Your task to perform on an android device: clear history in the chrome app Image 0: 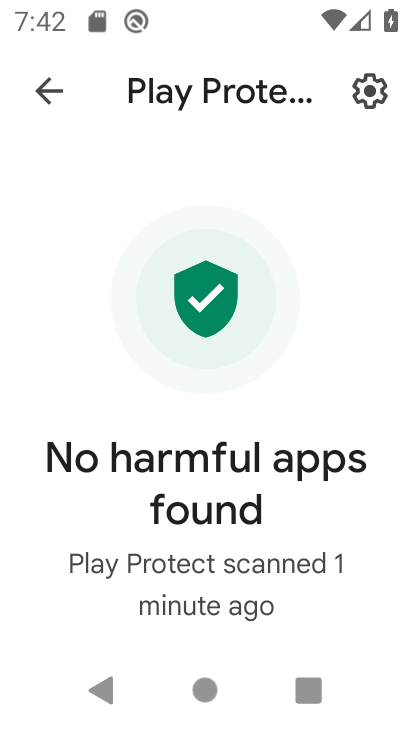
Step 0: press back button
Your task to perform on an android device: clear history in the chrome app Image 1: 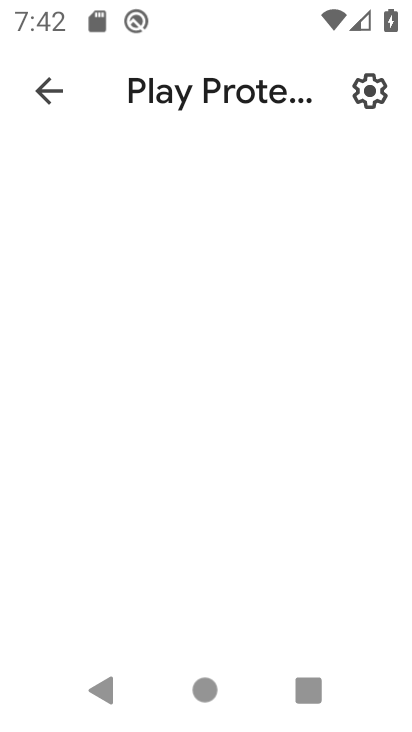
Step 1: press back button
Your task to perform on an android device: clear history in the chrome app Image 2: 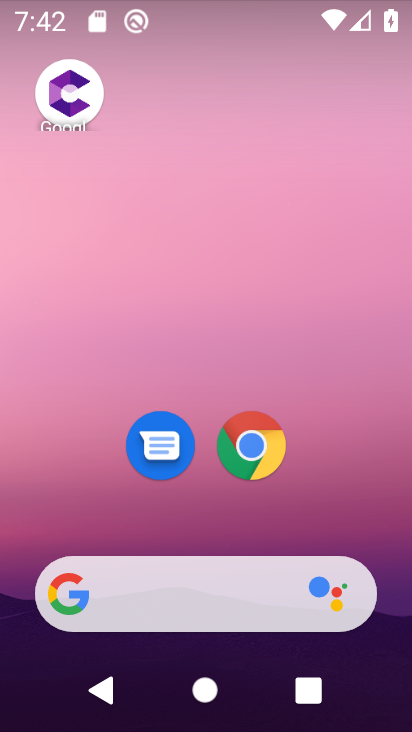
Step 2: drag from (264, 573) to (216, 85)
Your task to perform on an android device: clear history in the chrome app Image 3: 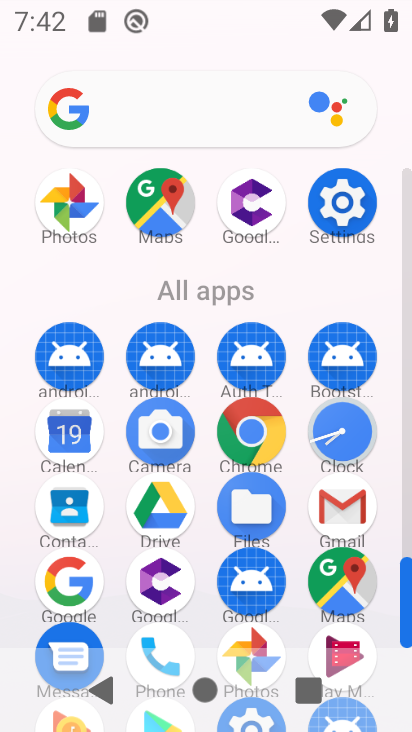
Step 3: click (236, 431)
Your task to perform on an android device: clear history in the chrome app Image 4: 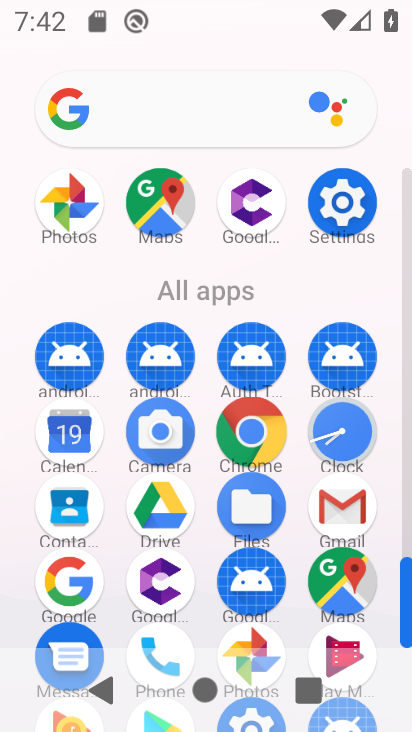
Step 4: click (237, 430)
Your task to perform on an android device: clear history in the chrome app Image 5: 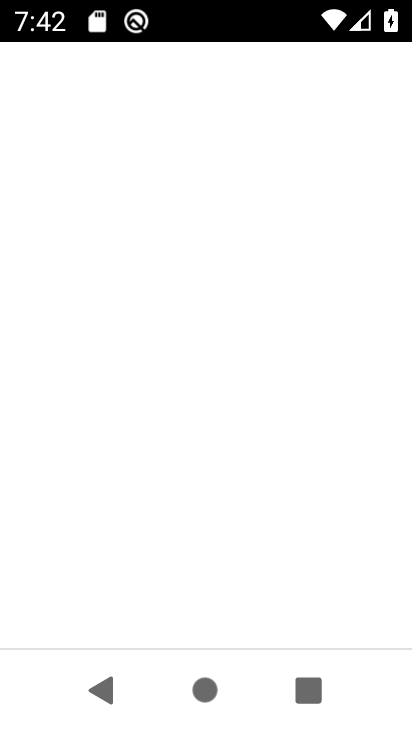
Step 5: click (245, 425)
Your task to perform on an android device: clear history in the chrome app Image 6: 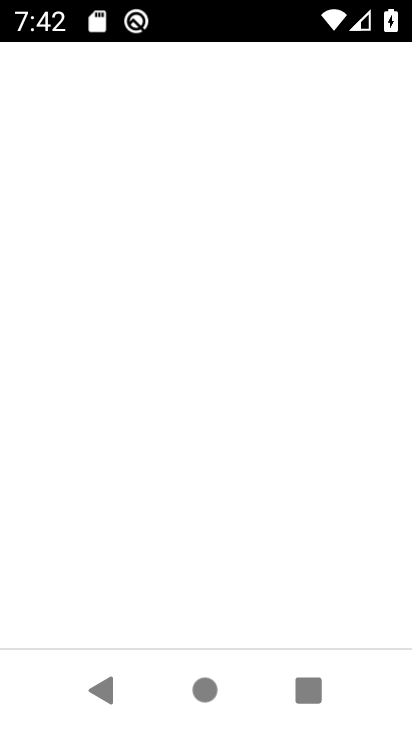
Step 6: click (247, 413)
Your task to perform on an android device: clear history in the chrome app Image 7: 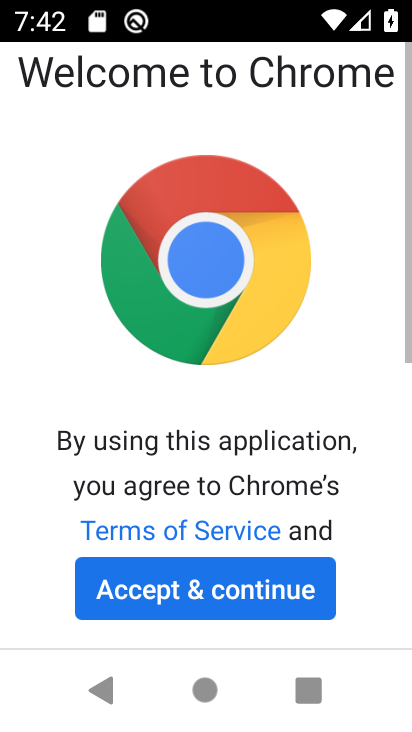
Step 7: click (247, 415)
Your task to perform on an android device: clear history in the chrome app Image 8: 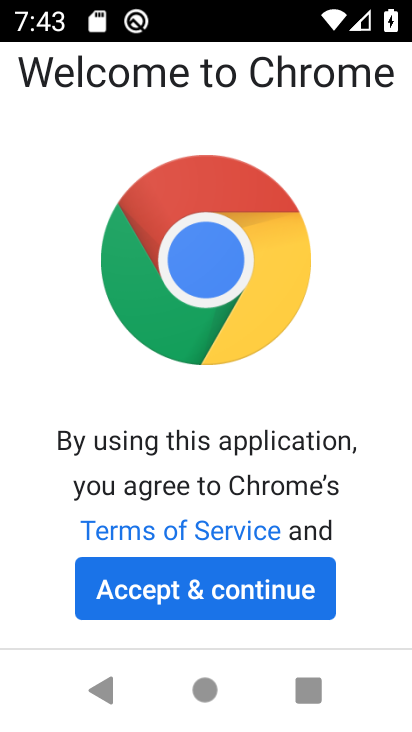
Step 8: click (231, 573)
Your task to perform on an android device: clear history in the chrome app Image 9: 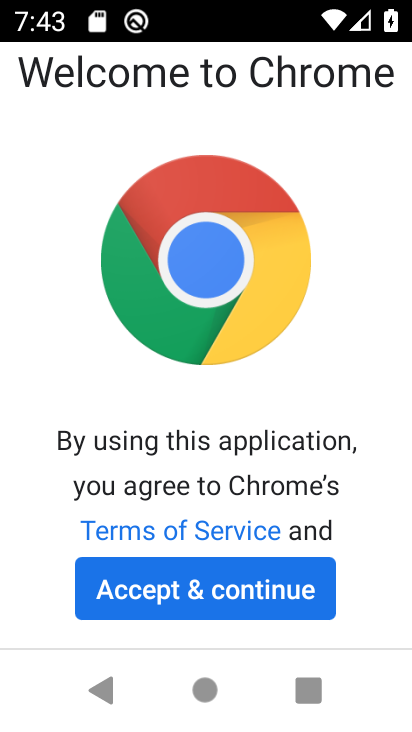
Step 9: click (231, 573)
Your task to perform on an android device: clear history in the chrome app Image 10: 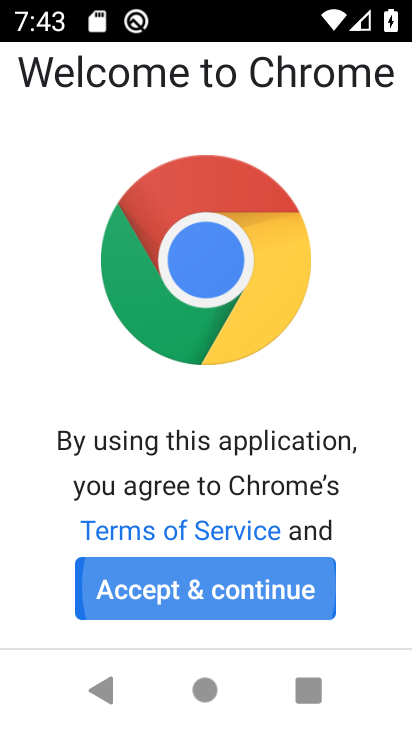
Step 10: click (231, 573)
Your task to perform on an android device: clear history in the chrome app Image 11: 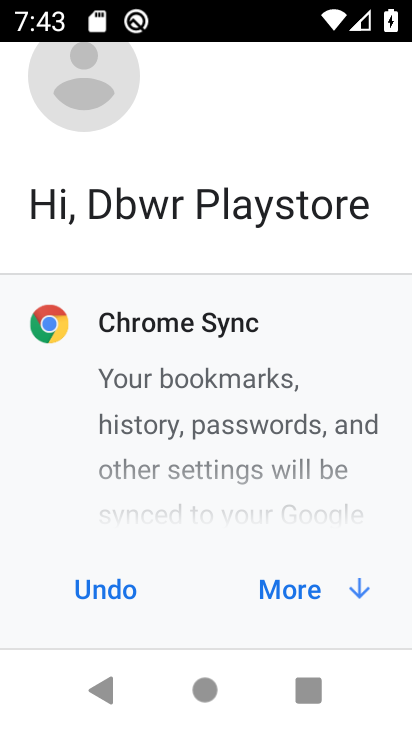
Step 11: click (234, 583)
Your task to perform on an android device: clear history in the chrome app Image 12: 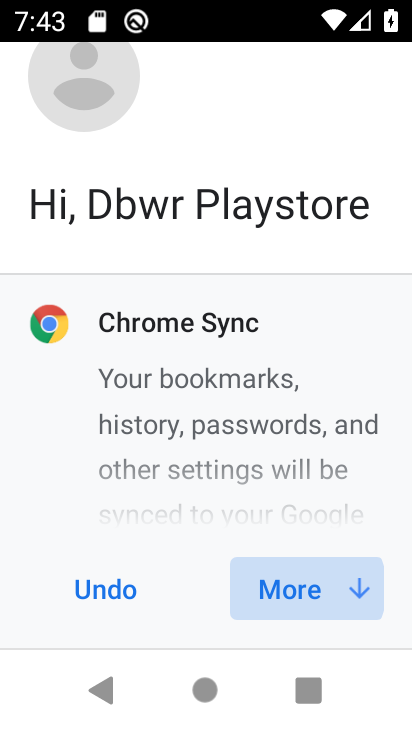
Step 12: click (242, 592)
Your task to perform on an android device: clear history in the chrome app Image 13: 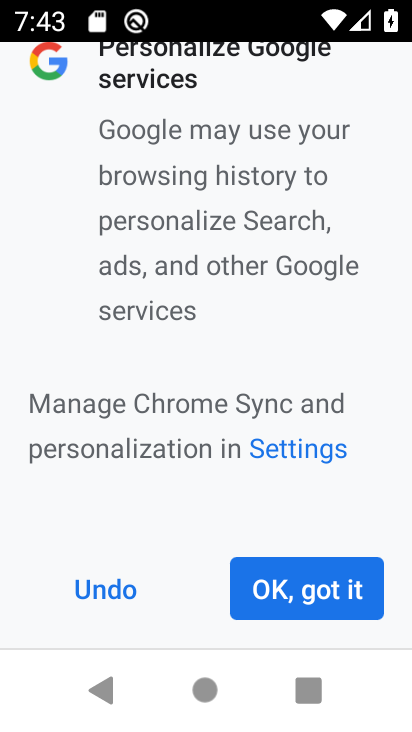
Step 13: click (278, 591)
Your task to perform on an android device: clear history in the chrome app Image 14: 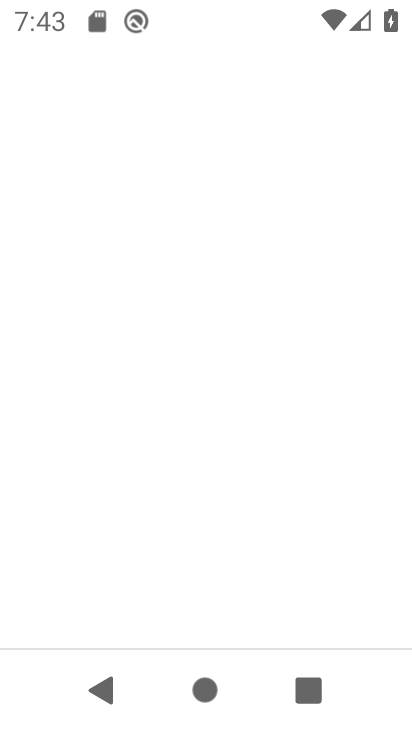
Step 14: click (278, 589)
Your task to perform on an android device: clear history in the chrome app Image 15: 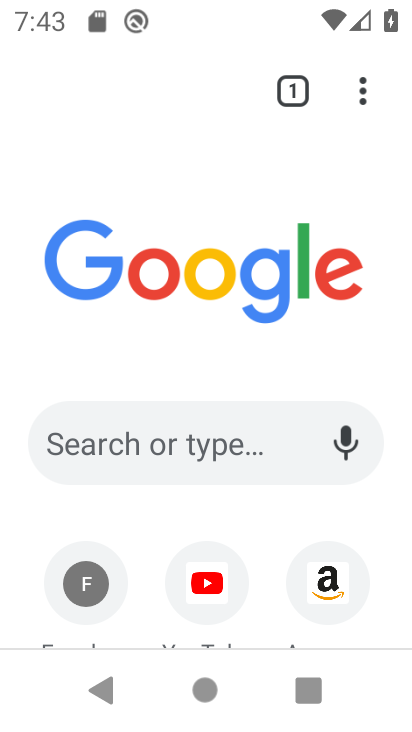
Step 15: drag from (367, 94) to (124, 343)
Your task to perform on an android device: clear history in the chrome app Image 16: 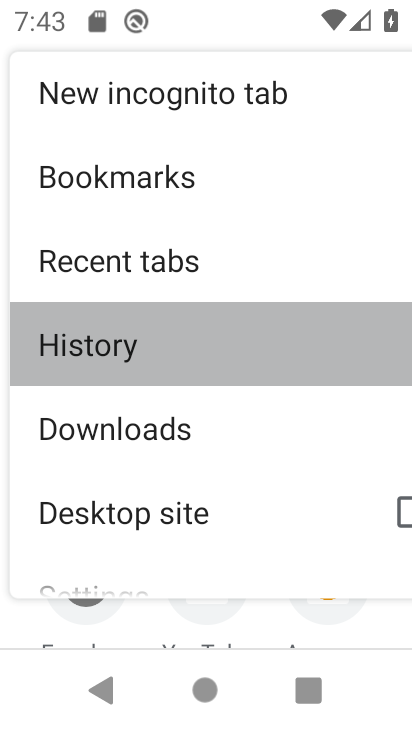
Step 16: click (125, 342)
Your task to perform on an android device: clear history in the chrome app Image 17: 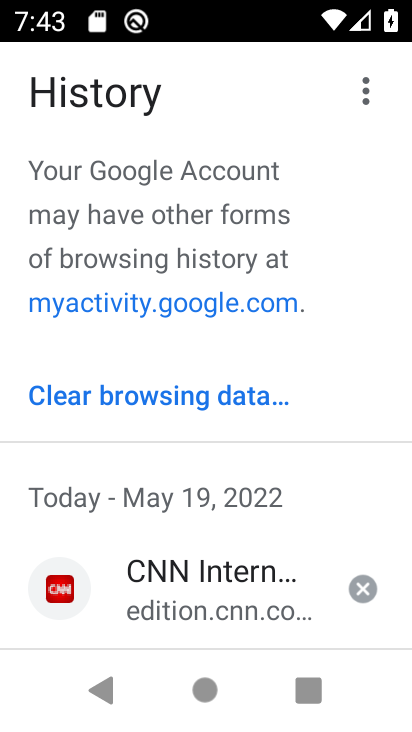
Step 17: click (228, 399)
Your task to perform on an android device: clear history in the chrome app Image 18: 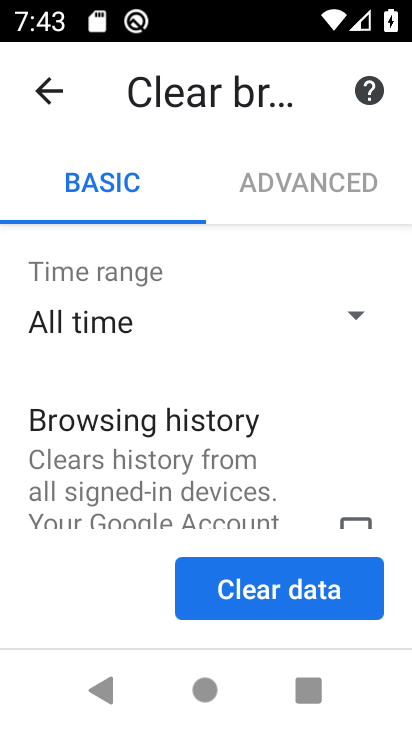
Step 18: click (272, 598)
Your task to perform on an android device: clear history in the chrome app Image 19: 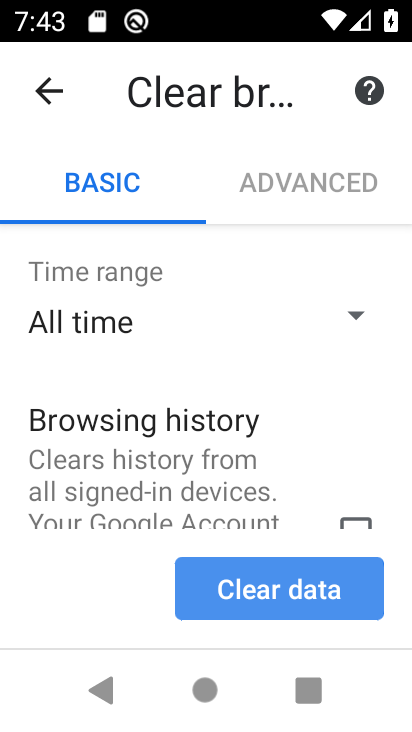
Step 19: click (272, 598)
Your task to perform on an android device: clear history in the chrome app Image 20: 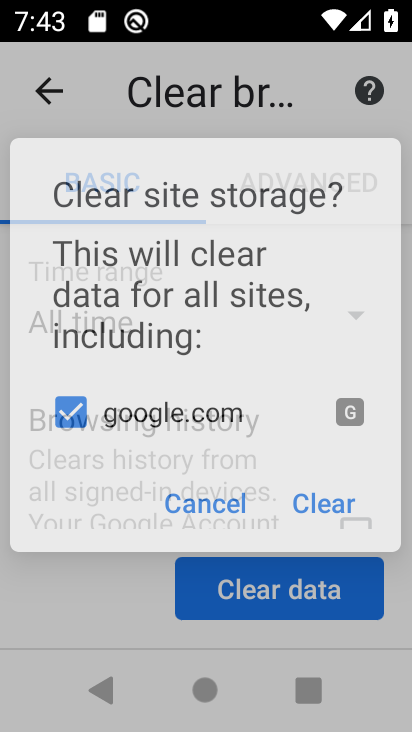
Step 20: click (272, 598)
Your task to perform on an android device: clear history in the chrome app Image 21: 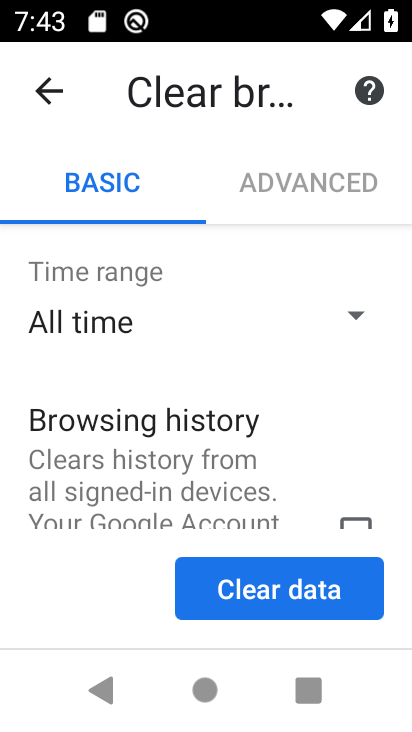
Step 21: click (293, 590)
Your task to perform on an android device: clear history in the chrome app Image 22: 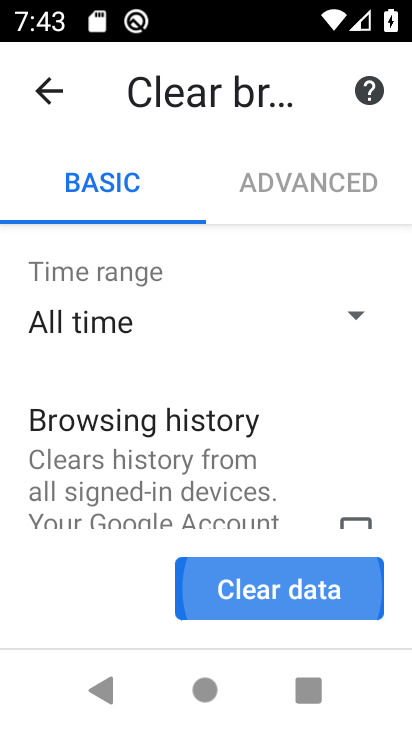
Step 22: click (293, 591)
Your task to perform on an android device: clear history in the chrome app Image 23: 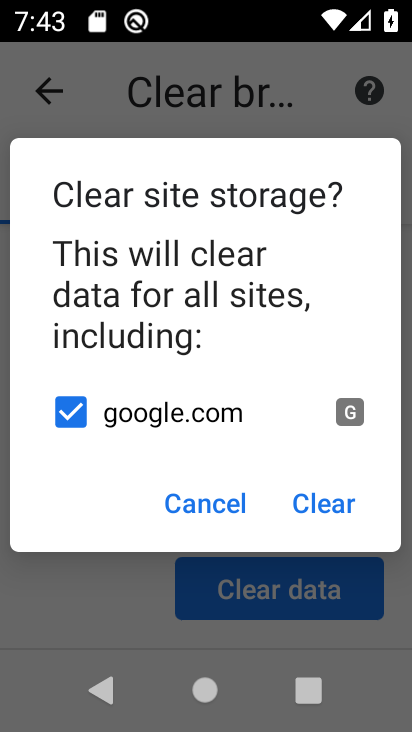
Step 23: click (296, 589)
Your task to perform on an android device: clear history in the chrome app Image 24: 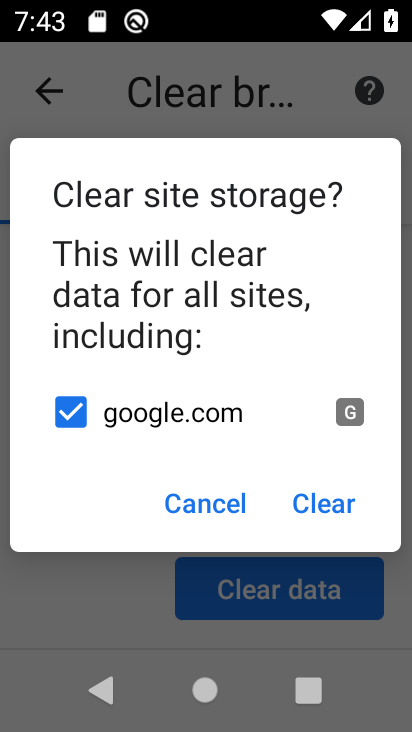
Step 24: click (299, 585)
Your task to perform on an android device: clear history in the chrome app Image 25: 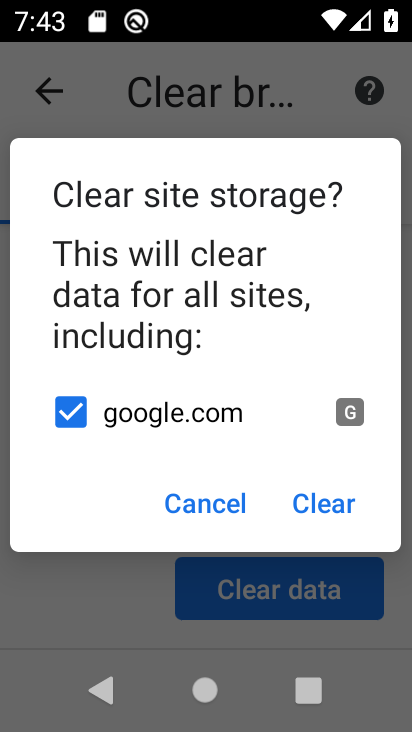
Step 25: click (315, 479)
Your task to perform on an android device: clear history in the chrome app Image 26: 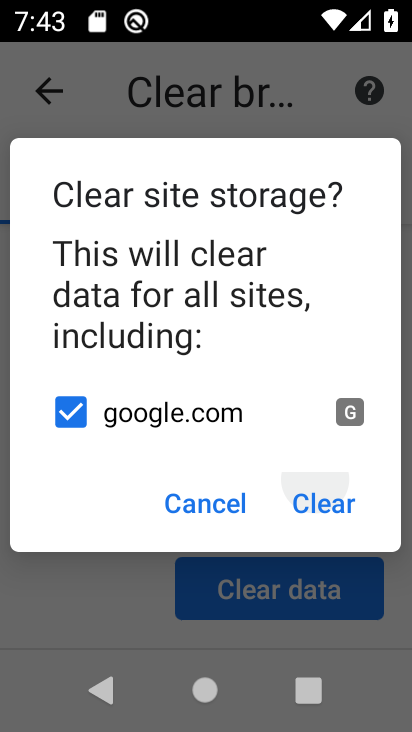
Step 26: click (320, 497)
Your task to perform on an android device: clear history in the chrome app Image 27: 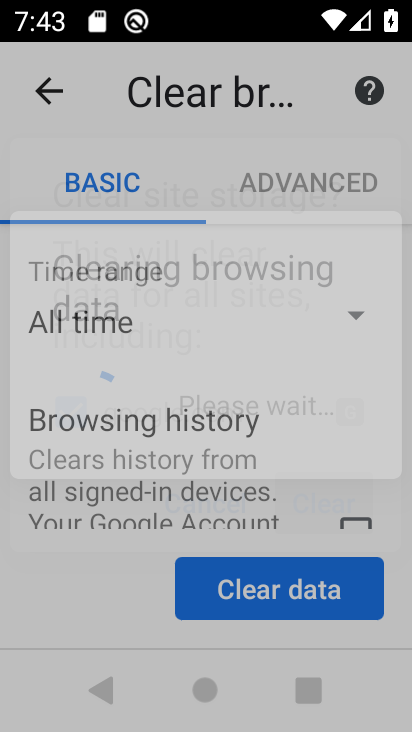
Step 27: click (320, 497)
Your task to perform on an android device: clear history in the chrome app Image 28: 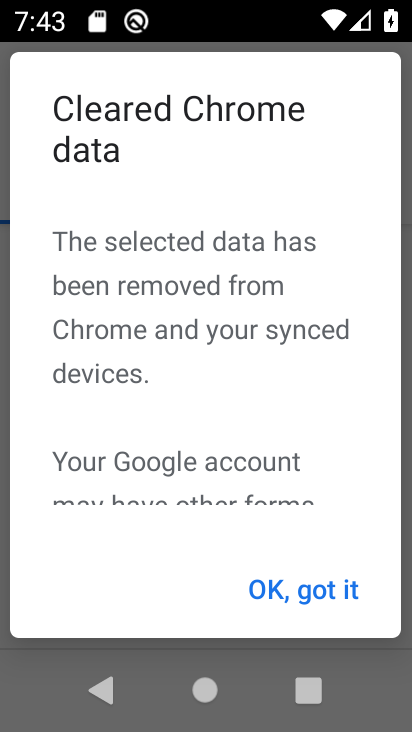
Step 28: click (310, 584)
Your task to perform on an android device: clear history in the chrome app Image 29: 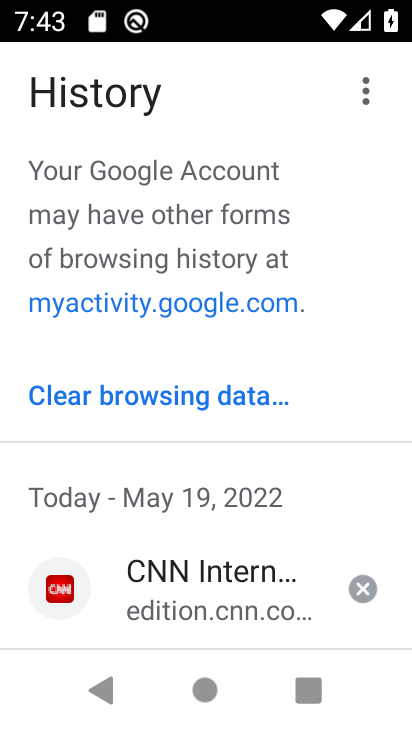
Step 29: task complete